Your task to perform on an android device: Open the stopwatch Image 0: 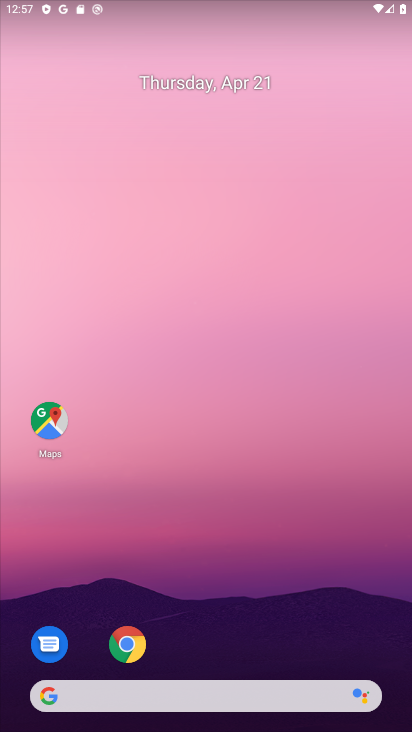
Step 0: drag from (256, 616) to (275, 39)
Your task to perform on an android device: Open the stopwatch Image 1: 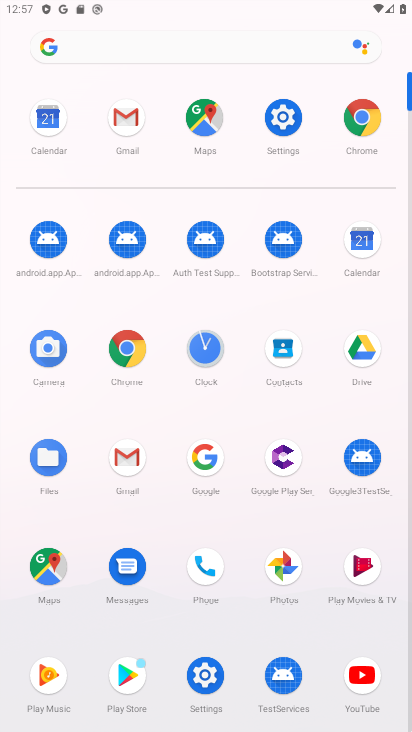
Step 1: click (209, 350)
Your task to perform on an android device: Open the stopwatch Image 2: 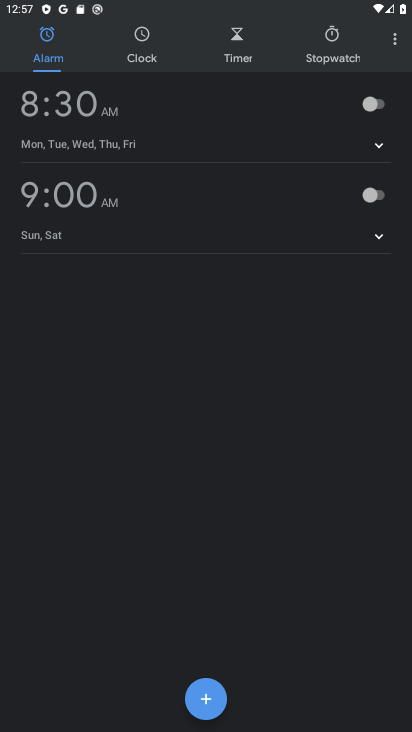
Step 2: click (347, 51)
Your task to perform on an android device: Open the stopwatch Image 3: 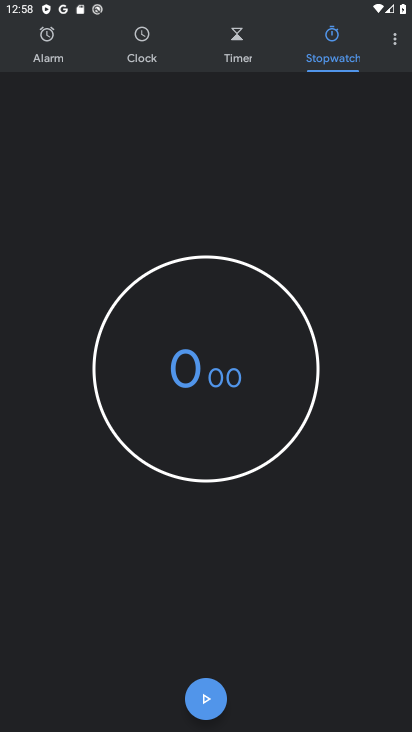
Step 3: click (206, 695)
Your task to perform on an android device: Open the stopwatch Image 4: 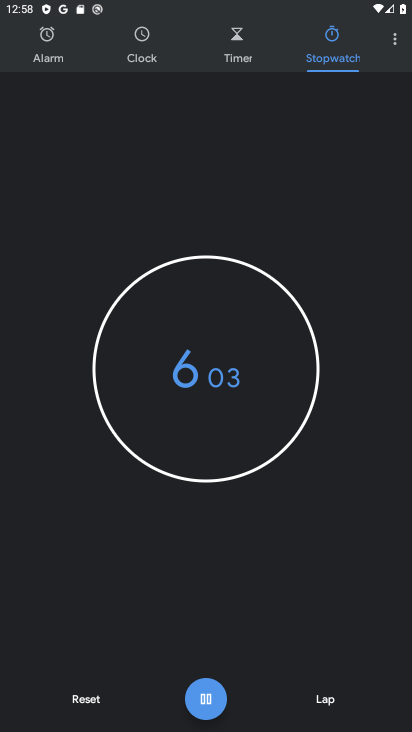
Step 4: task complete